Your task to perform on an android device: Go to Google Image 0: 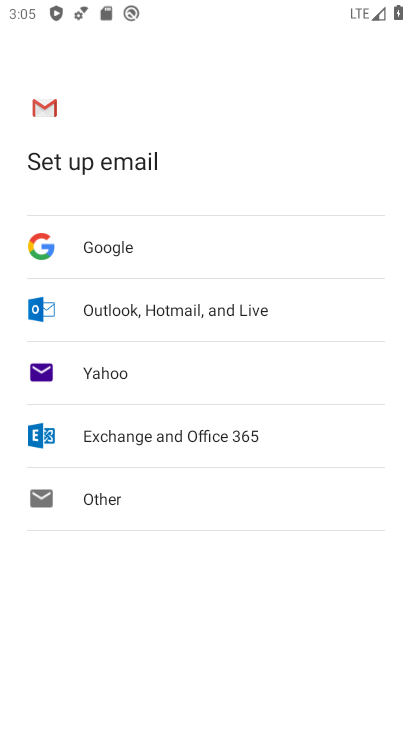
Step 0: press back button
Your task to perform on an android device: Go to Google Image 1: 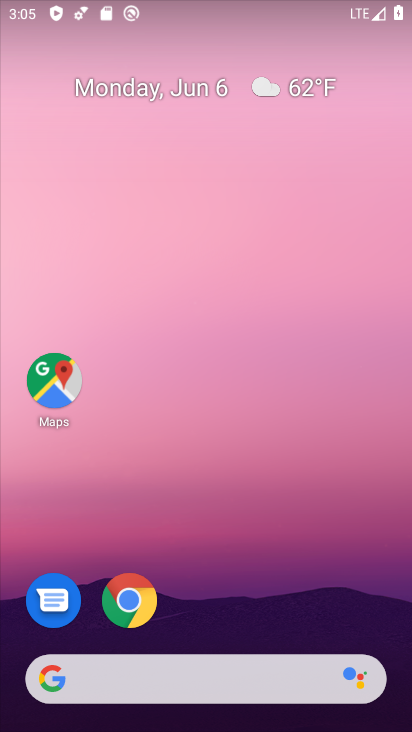
Step 1: drag from (261, 611) to (188, 26)
Your task to perform on an android device: Go to Google Image 2: 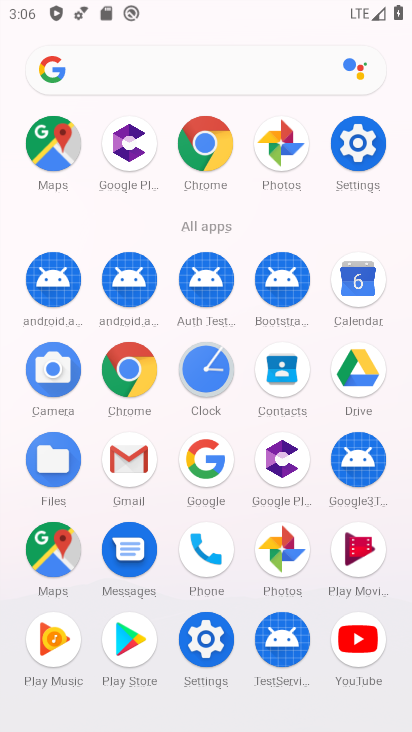
Step 2: click (200, 458)
Your task to perform on an android device: Go to Google Image 3: 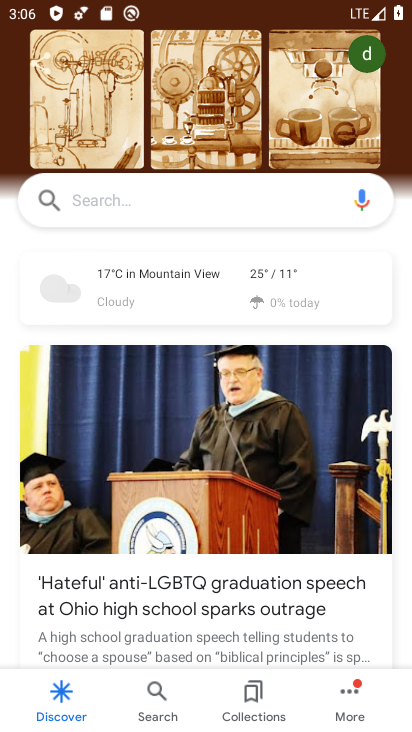
Step 3: task complete